Your task to perform on an android device: check out phone information Image 0: 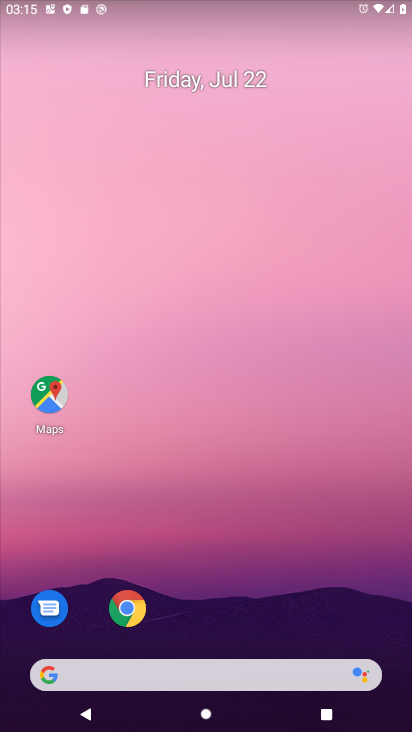
Step 0: drag from (338, 630) to (205, 76)
Your task to perform on an android device: check out phone information Image 1: 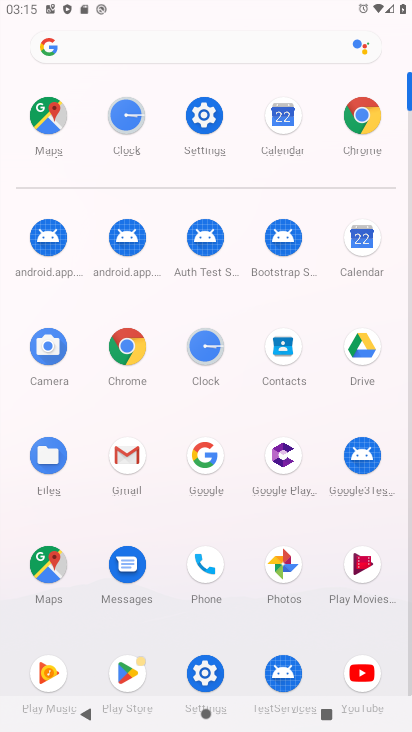
Step 1: click (212, 670)
Your task to perform on an android device: check out phone information Image 2: 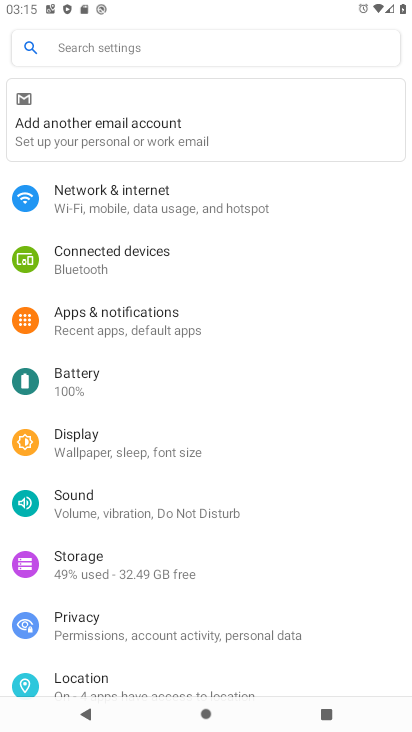
Step 2: drag from (324, 639) to (222, 176)
Your task to perform on an android device: check out phone information Image 3: 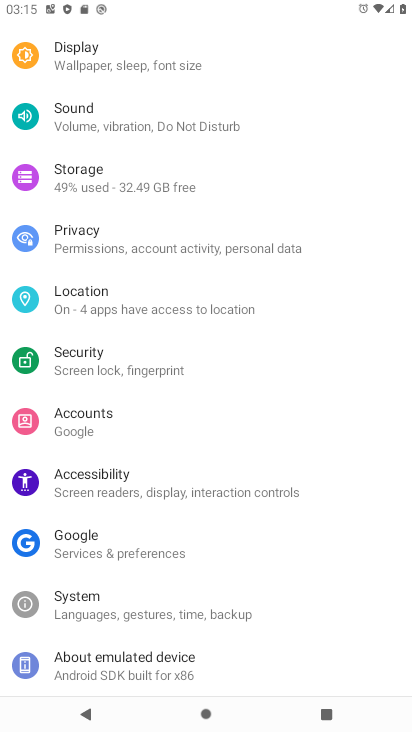
Step 3: drag from (292, 595) to (238, 168)
Your task to perform on an android device: check out phone information Image 4: 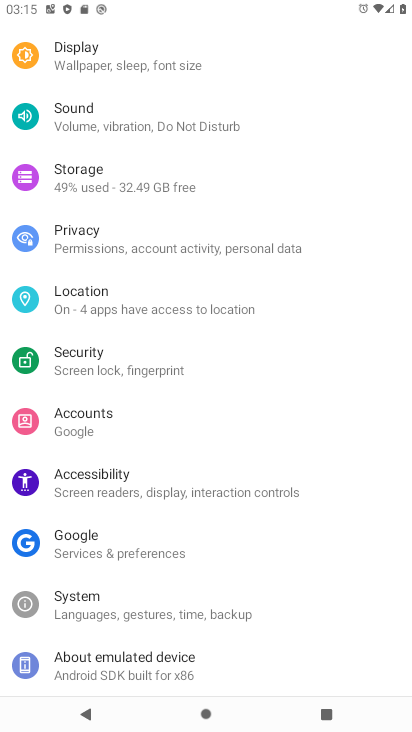
Step 4: click (175, 670)
Your task to perform on an android device: check out phone information Image 5: 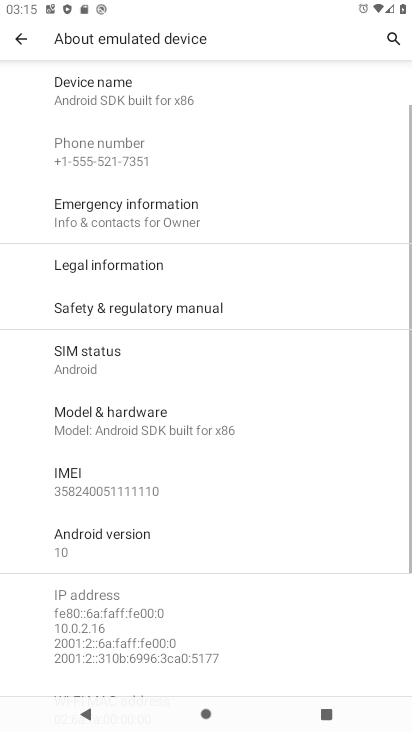
Step 5: task complete